Your task to perform on an android device: Open location settings Image 0: 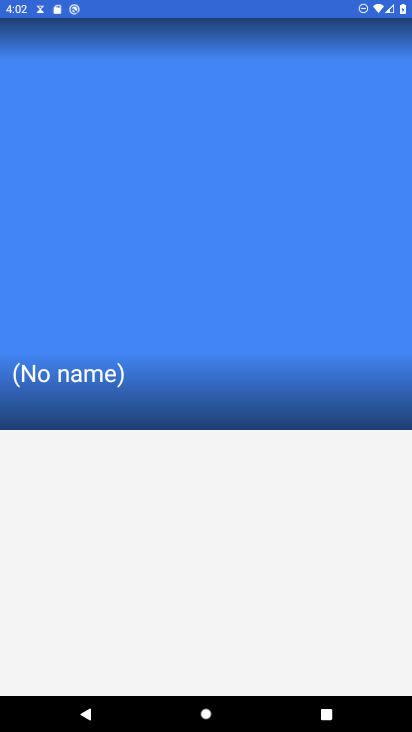
Step 0: drag from (243, 517) to (277, 231)
Your task to perform on an android device: Open location settings Image 1: 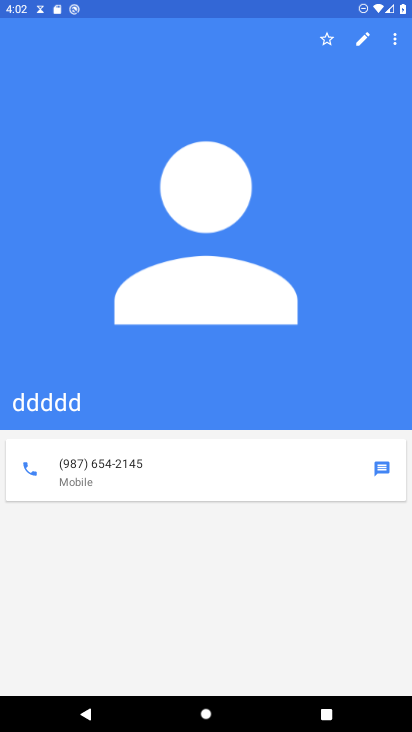
Step 1: press home button
Your task to perform on an android device: Open location settings Image 2: 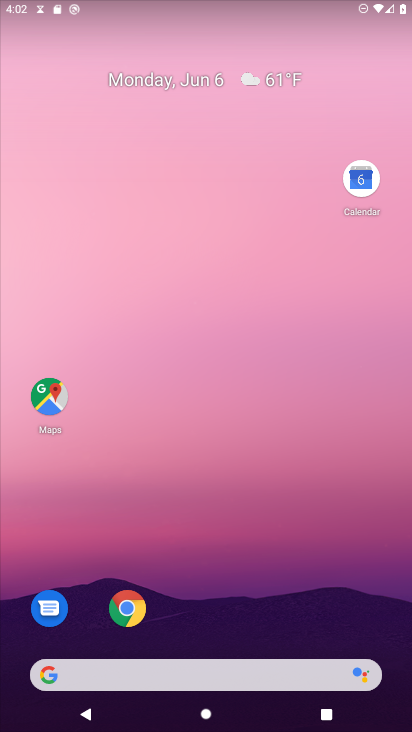
Step 2: drag from (256, 583) to (305, 46)
Your task to perform on an android device: Open location settings Image 3: 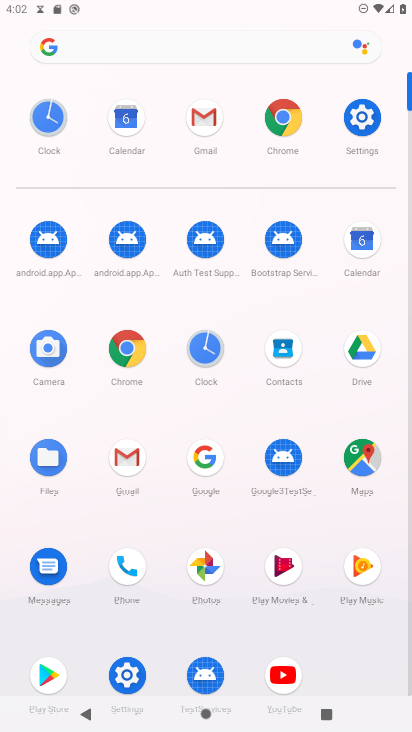
Step 3: click (358, 134)
Your task to perform on an android device: Open location settings Image 4: 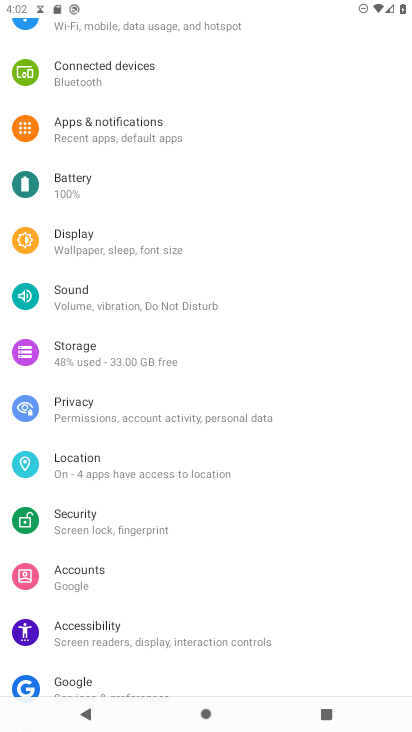
Step 4: click (62, 452)
Your task to perform on an android device: Open location settings Image 5: 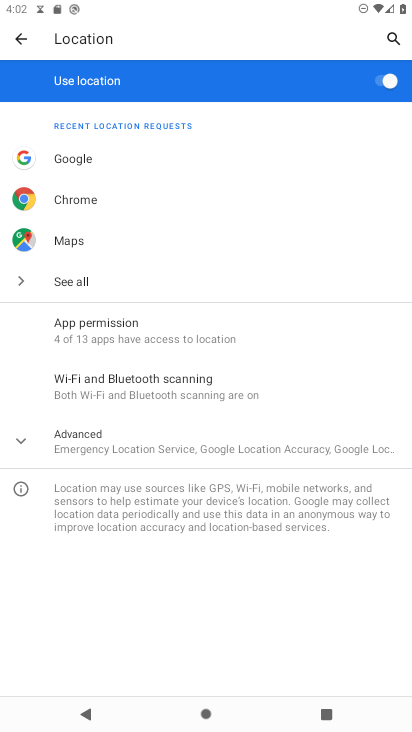
Step 5: task complete